Your task to perform on an android device: Open the web browser Image 0: 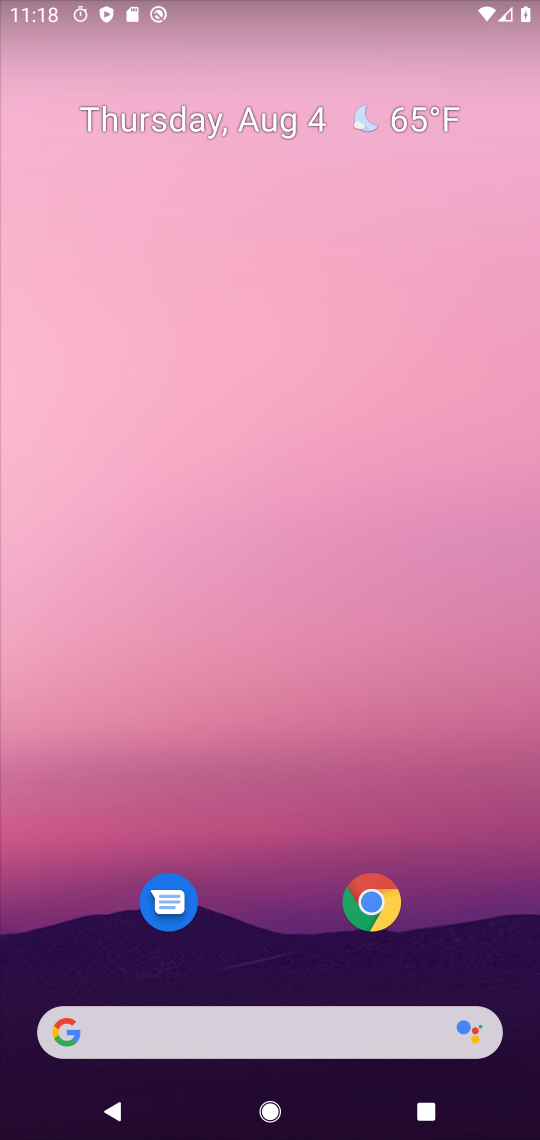
Step 0: press home button
Your task to perform on an android device: Open the web browser Image 1: 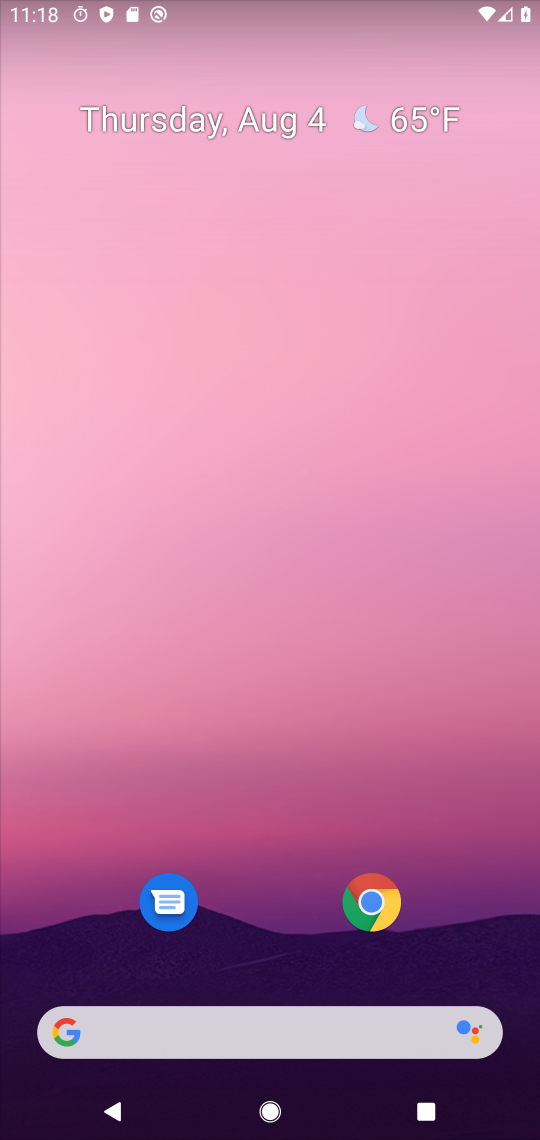
Step 1: drag from (343, 982) to (398, 259)
Your task to perform on an android device: Open the web browser Image 2: 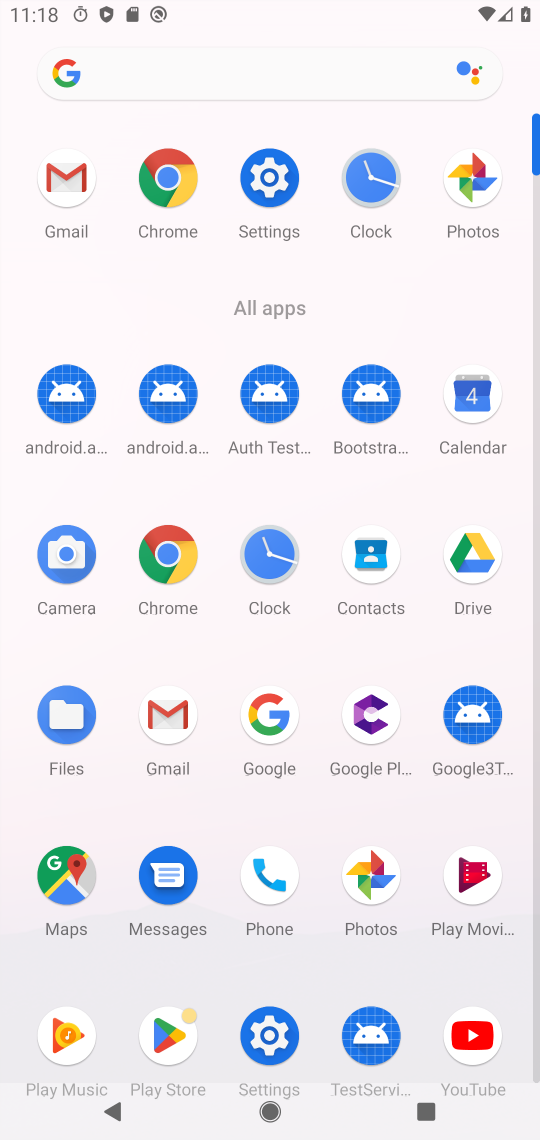
Step 2: click (175, 189)
Your task to perform on an android device: Open the web browser Image 3: 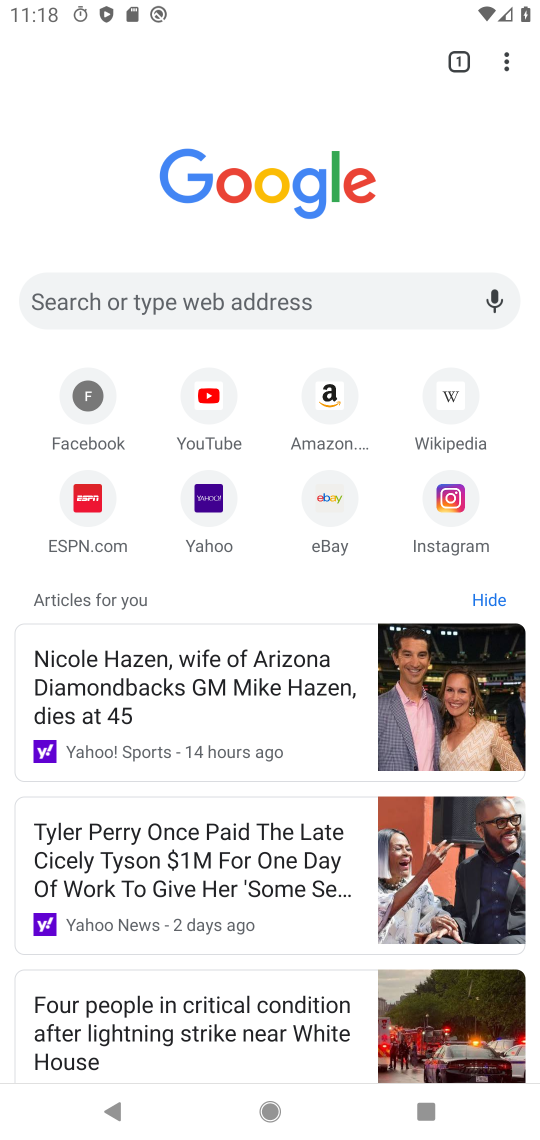
Step 3: click (186, 303)
Your task to perform on an android device: Open the web browser Image 4: 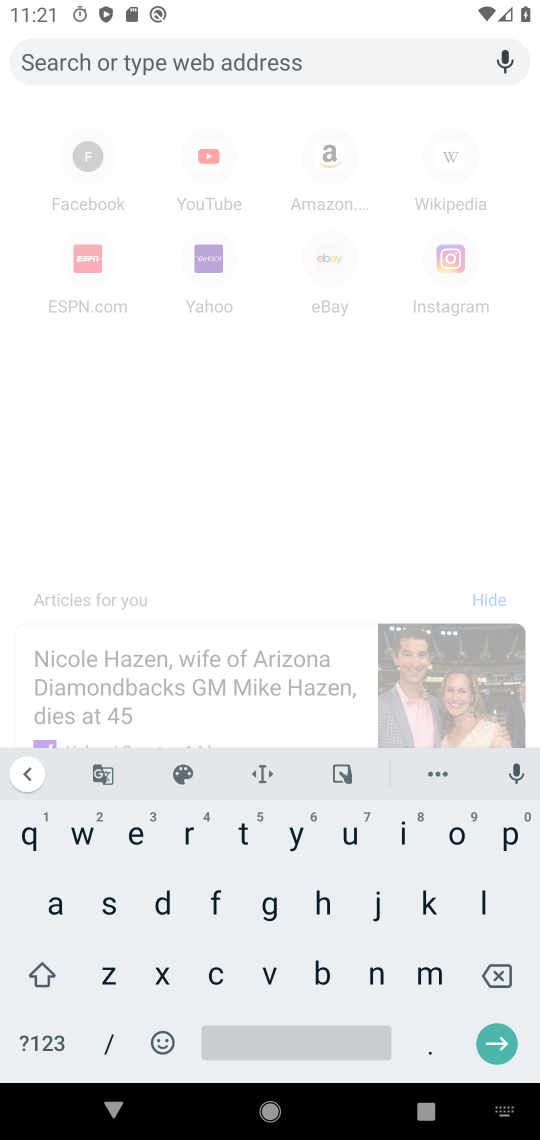
Step 4: task complete